Your task to perform on an android device: open app "NewsBreak: Local News & Alerts" (install if not already installed) and enter user name: "switch@outlook.com" and password: "fabrics" Image 0: 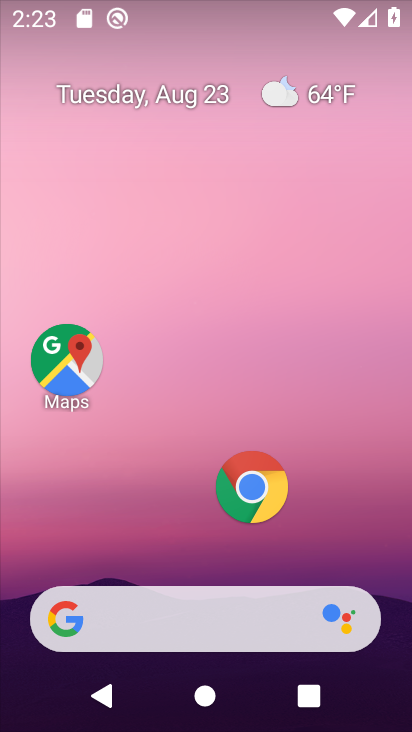
Step 0: drag from (198, 584) to (202, 139)
Your task to perform on an android device: open app "NewsBreak: Local News & Alerts" (install if not already installed) and enter user name: "switch@outlook.com" and password: "fabrics" Image 1: 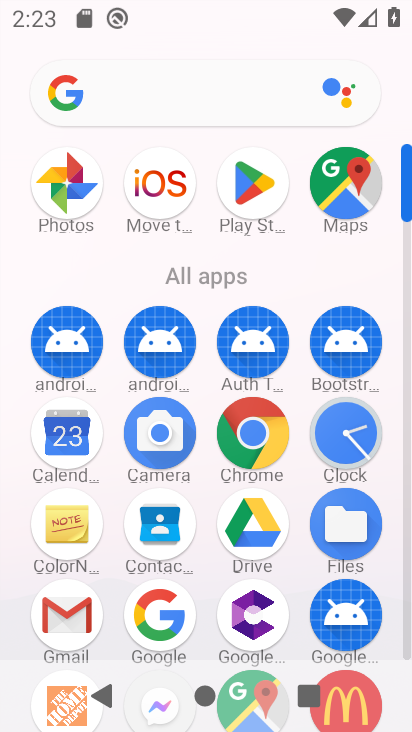
Step 1: click (248, 192)
Your task to perform on an android device: open app "NewsBreak: Local News & Alerts" (install if not already installed) and enter user name: "switch@outlook.com" and password: "fabrics" Image 2: 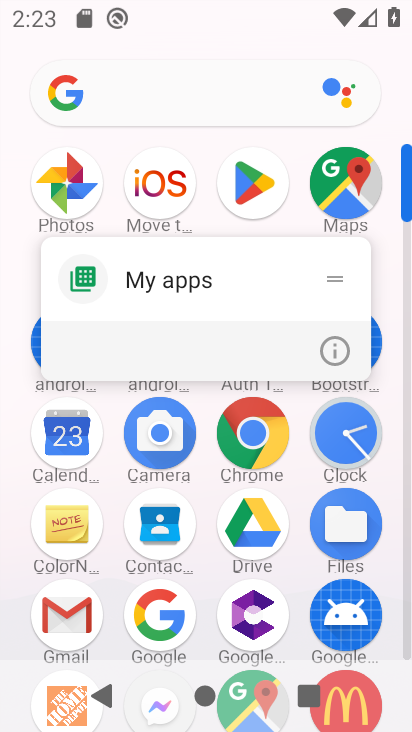
Step 2: click (248, 190)
Your task to perform on an android device: open app "NewsBreak: Local News & Alerts" (install if not already installed) and enter user name: "switch@outlook.com" and password: "fabrics" Image 3: 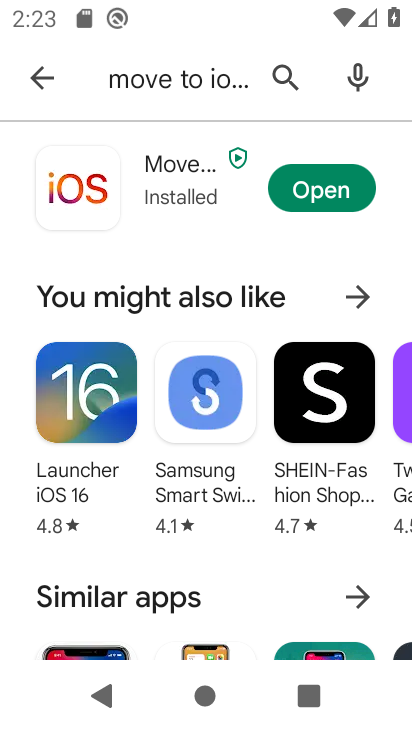
Step 3: click (36, 68)
Your task to perform on an android device: open app "NewsBreak: Local News & Alerts" (install if not already installed) and enter user name: "switch@outlook.com" and password: "fabrics" Image 4: 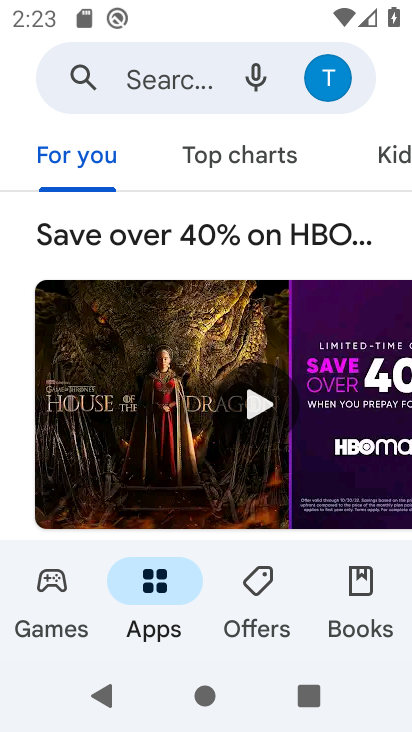
Step 4: click (138, 77)
Your task to perform on an android device: open app "NewsBreak: Local News & Alerts" (install if not already installed) and enter user name: "switch@outlook.com" and password: "fabrics" Image 5: 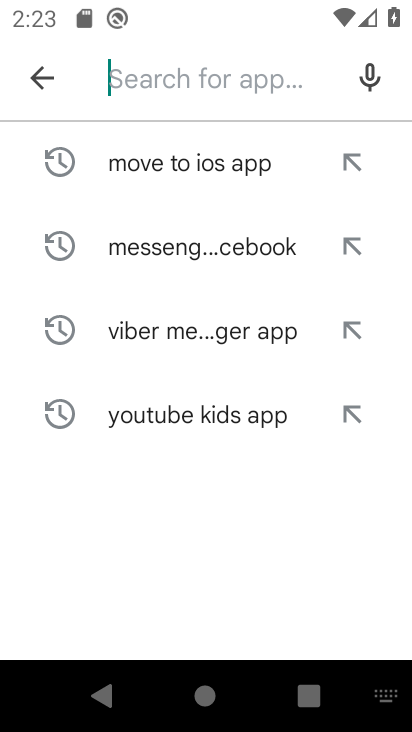
Step 5: type "NewsBreak: Local News & Alerts "
Your task to perform on an android device: open app "NewsBreak: Local News & Alerts" (install if not already installed) and enter user name: "switch@outlook.com" and password: "fabrics" Image 6: 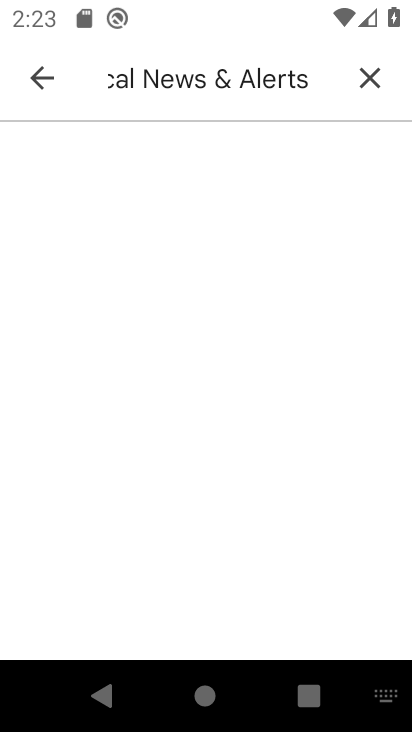
Step 6: click (378, 82)
Your task to perform on an android device: open app "NewsBreak: Local News & Alerts" (install if not already installed) and enter user name: "switch@outlook.com" and password: "fabrics" Image 7: 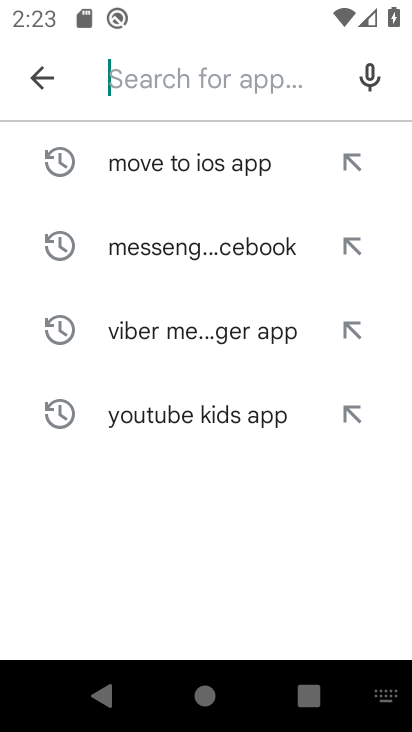
Step 7: click (205, 84)
Your task to perform on an android device: open app "NewsBreak: Local News & Alerts" (install if not already installed) and enter user name: "switch@outlook.com" and password: "fabrics" Image 8: 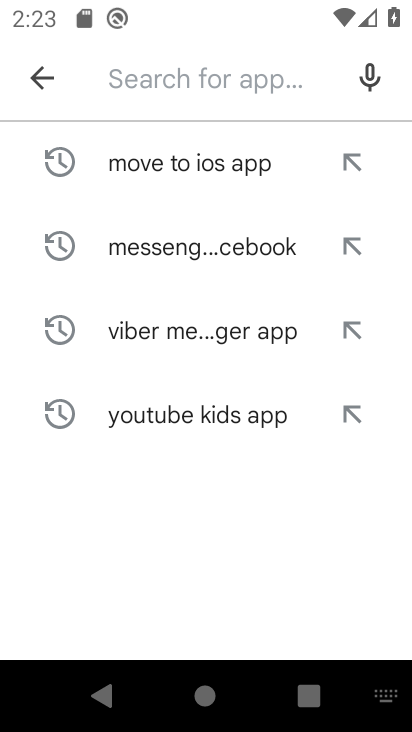
Step 8: type "NewsBreak "
Your task to perform on an android device: open app "NewsBreak: Local News & Alerts" (install if not already installed) and enter user name: "switch@outlook.com" and password: "fabrics" Image 9: 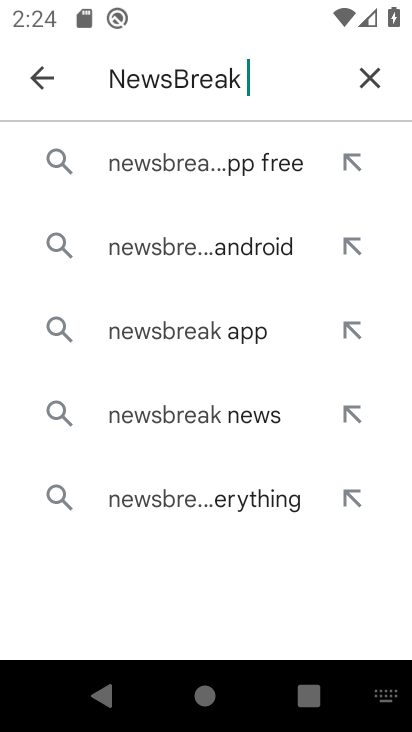
Step 9: click (105, 166)
Your task to perform on an android device: open app "NewsBreak: Local News & Alerts" (install if not already installed) and enter user name: "switch@outlook.com" and password: "fabrics" Image 10: 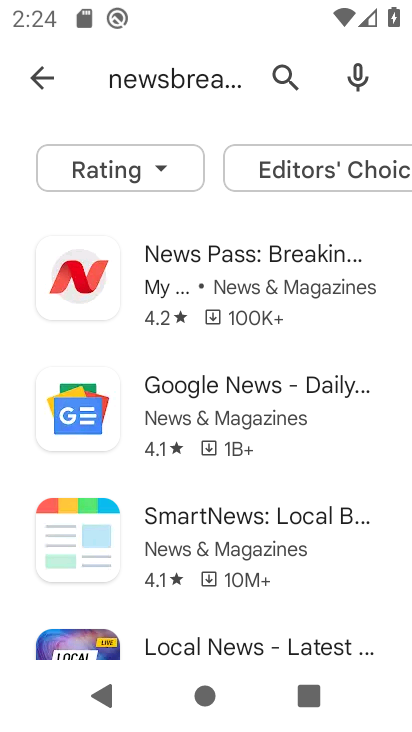
Step 10: click (294, 261)
Your task to perform on an android device: open app "NewsBreak: Local News & Alerts" (install if not already installed) and enter user name: "switch@outlook.com" and password: "fabrics" Image 11: 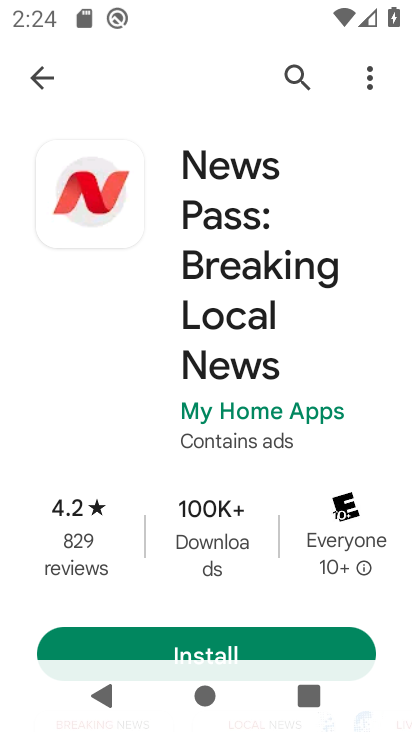
Step 11: click (61, 68)
Your task to perform on an android device: open app "NewsBreak: Local News & Alerts" (install if not already installed) and enter user name: "switch@outlook.com" and password: "fabrics" Image 12: 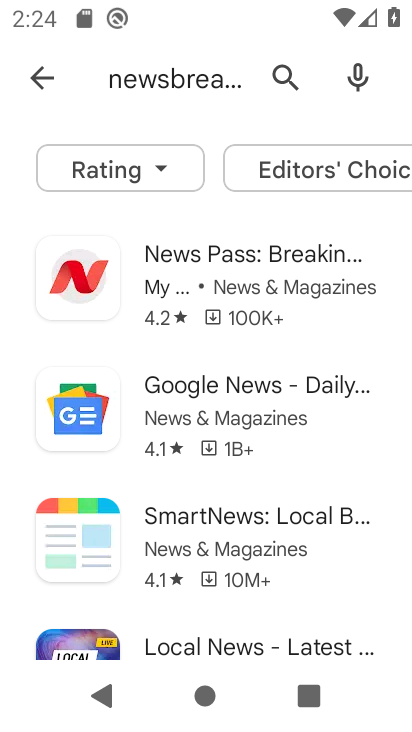
Step 12: task complete